Your task to perform on an android device: Go to ESPN.com Image 0: 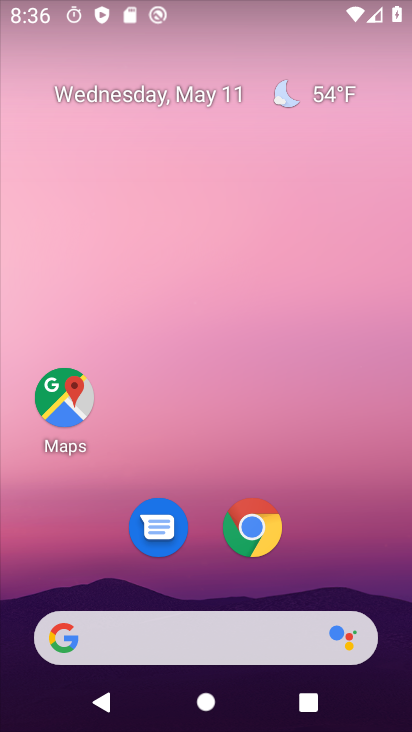
Step 0: drag from (207, 572) to (169, 73)
Your task to perform on an android device: Go to ESPN.com Image 1: 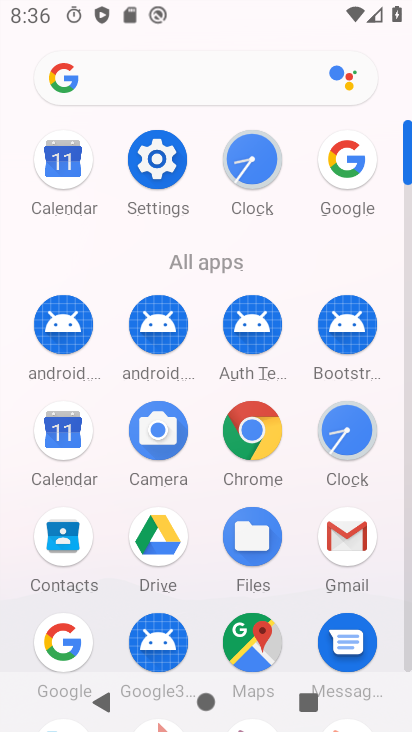
Step 1: click (345, 158)
Your task to perform on an android device: Go to ESPN.com Image 2: 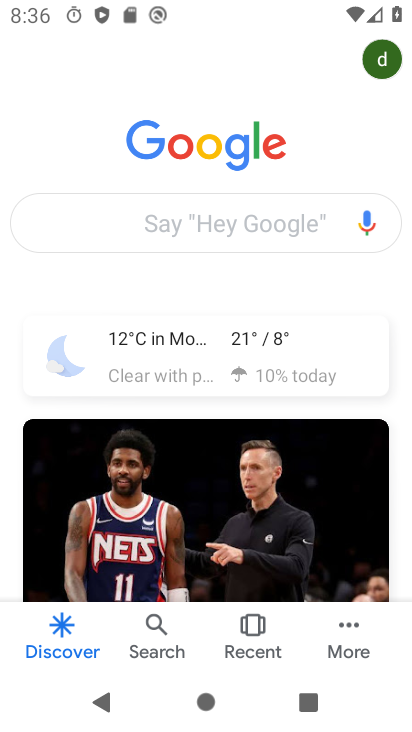
Step 2: click (163, 214)
Your task to perform on an android device: Go to ESPN.com Image 3: 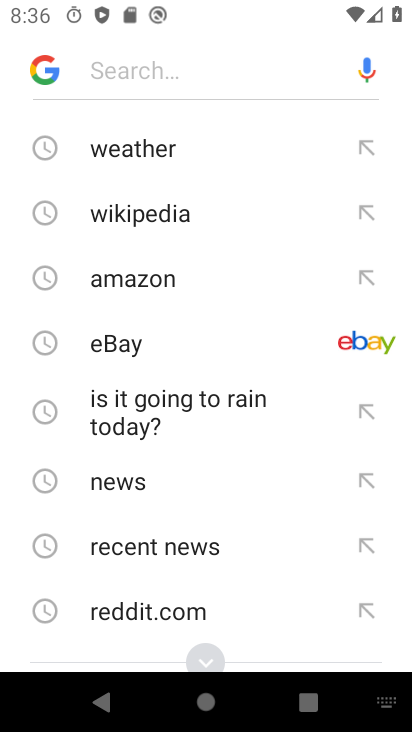
Step 3: type "espn.com"
Your task to perform on an android device: Go to ESPN.com Image 4: 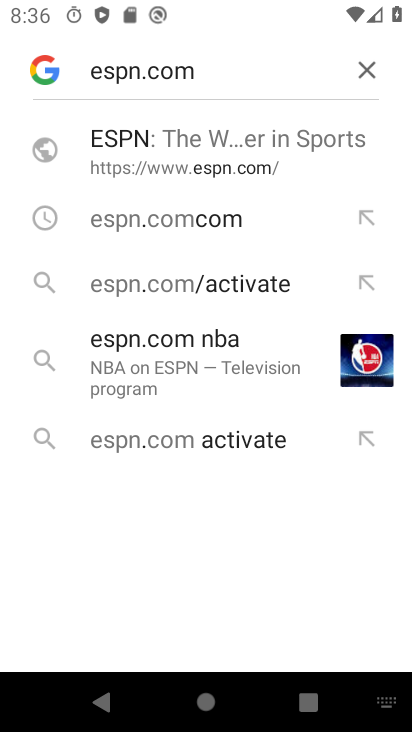
Step 4: click (207, 126)
Your task to perform on an android device: Go to ESPN.com Image 5: 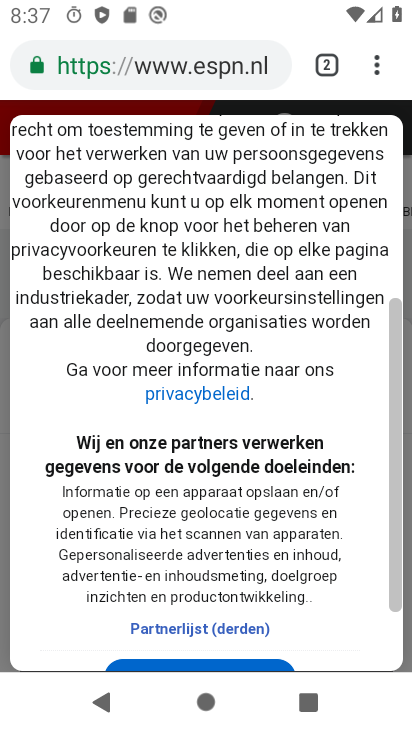
Step 5: task complete